Your task to perform on an android device: Show me recent news Image 0: 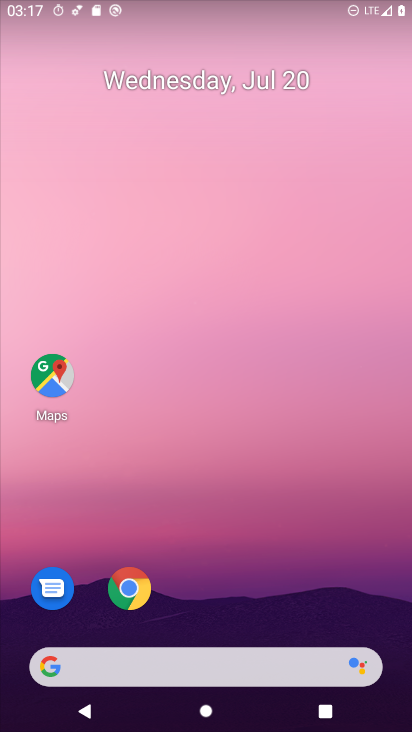
Step 0: click (131, 673)
Your task to perform on an android device: Show me recent news Image 1: 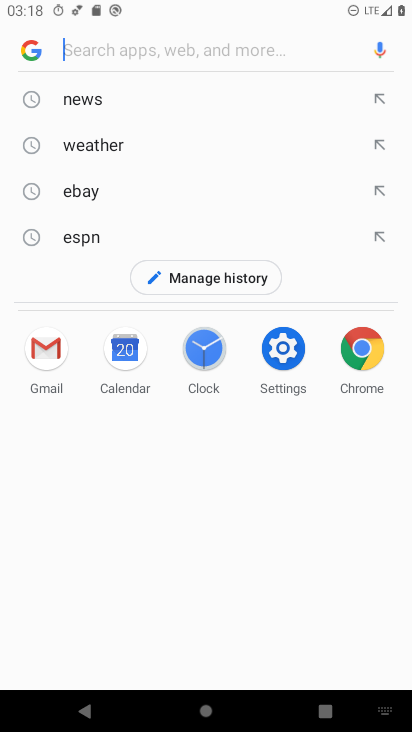
Step 1: click (80, 102)
Your task to perform on an android device: Show me recent news Image 2: 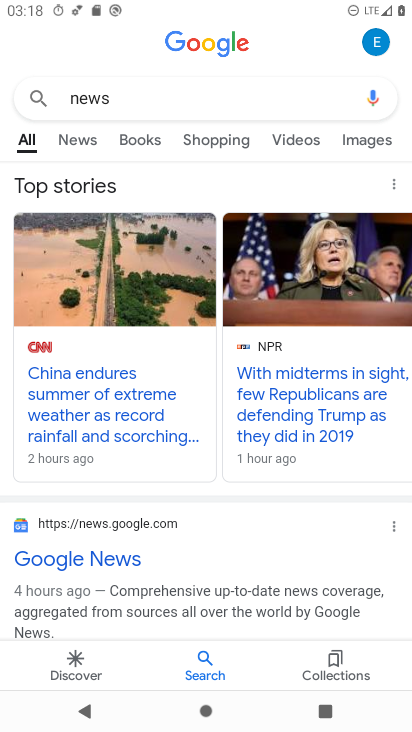
Step 2: click (72, 131)
Your task to perform on an android device: Show me recent news Image 3: 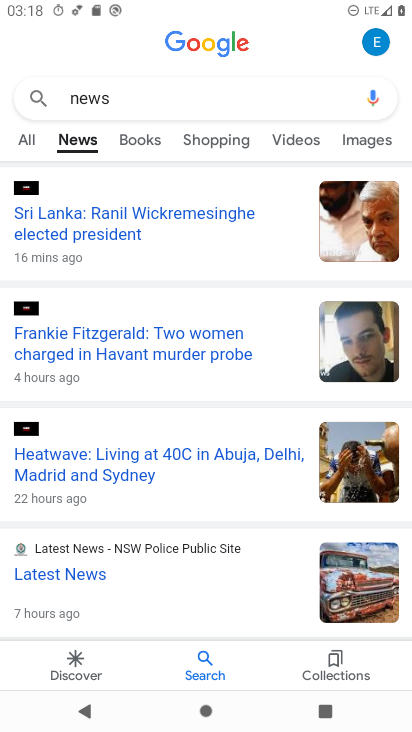
Step 3: task complete